Your task to perform on an android device: What is the news today? Image 0: 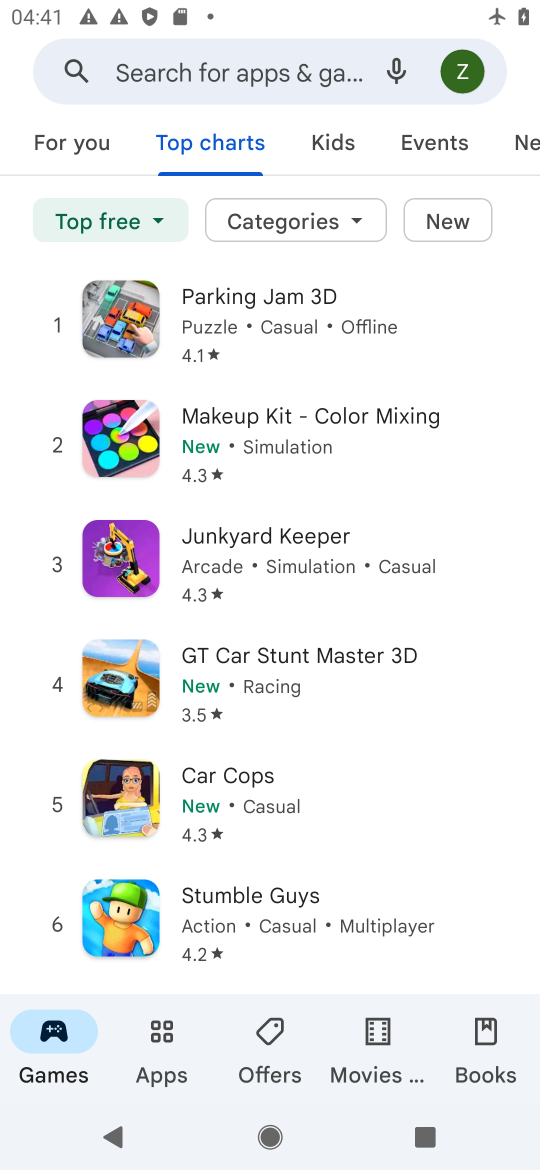
Step 0: press back button
Your task to perform on an android device: What is the news today? Image 1: 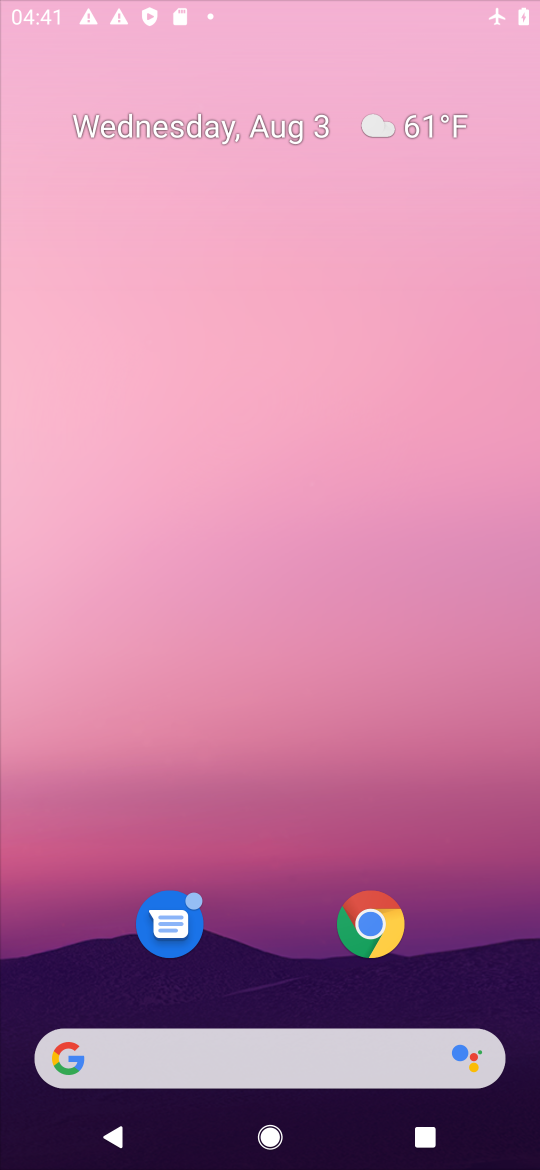
Step 1: press home button
Your task to perform on an android device: What is the news today? Image 2: 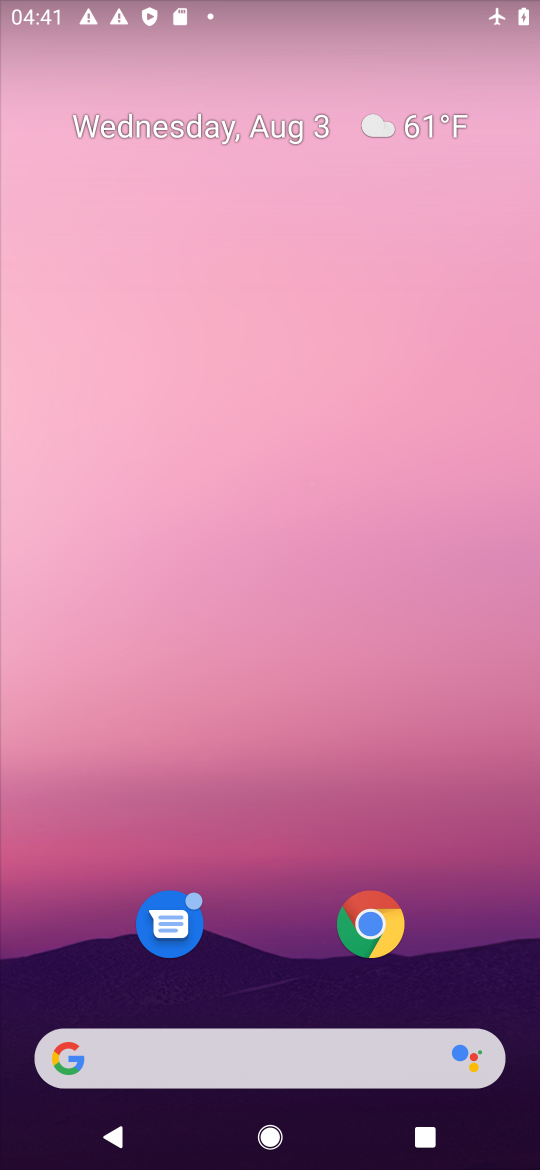
Step 2: drag from (284, 983) to (233, 348)
Your task to perform on an android device: What is the news today? Image 3: 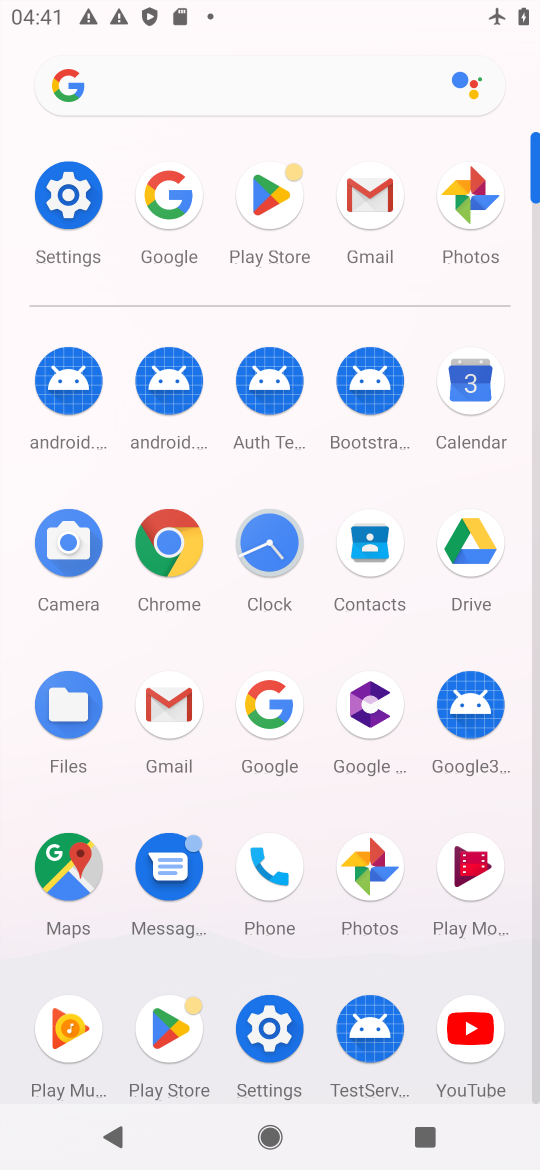
Step 3: click (181, 210)
Your task to perform on an android device: What is the news today? Image 4: 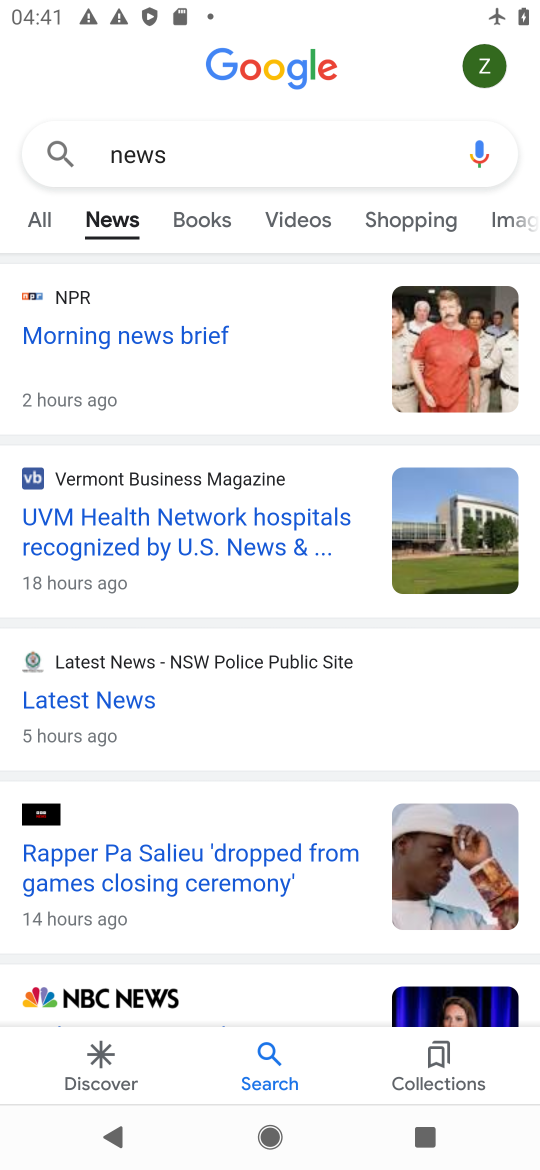
Step 4: task complete